Your task to perform on an android device: add a label to a message in the gmail app Image 0: 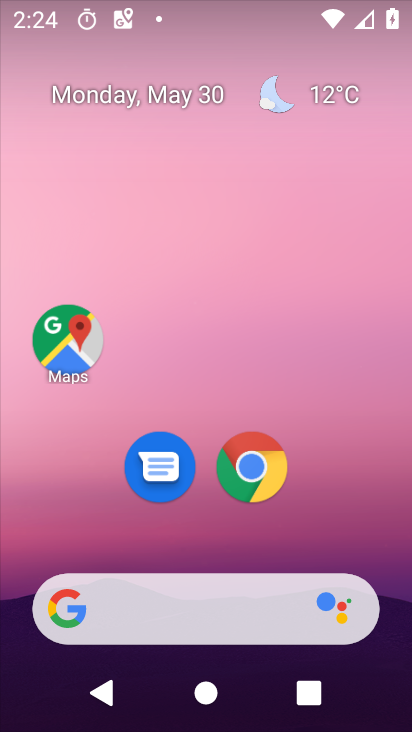
Step 0: drag from (383, 696) to (374, 264)
Your task to perform on an android device: add a label to a message in the gmail app Image 1: 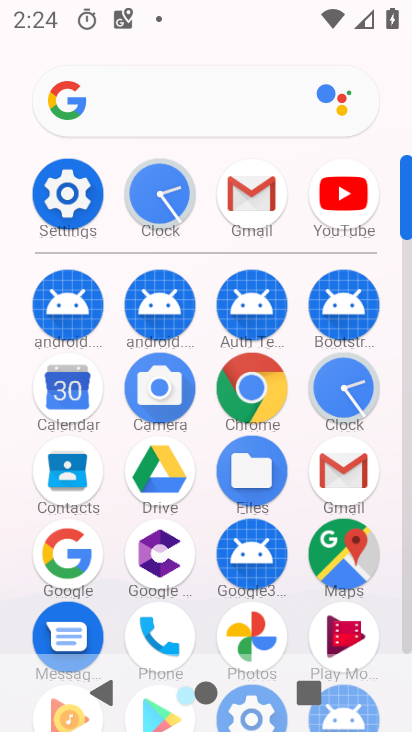
Step 1: click (254, 209)
Your task to perform on an android device: add a label to a message in the gmail app Image 2: 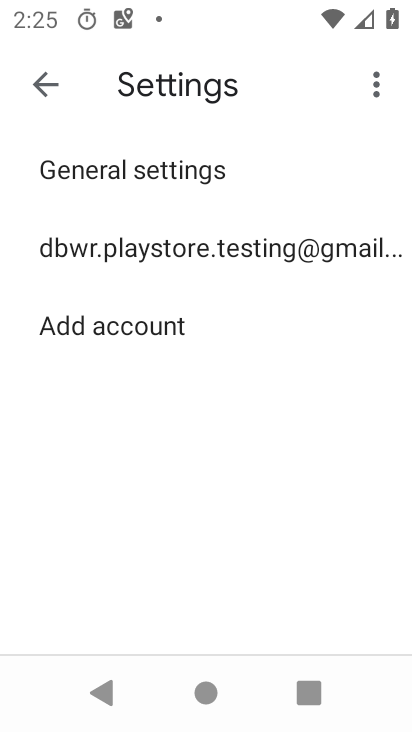
Step 2: click (35, 81)
Your task to perform on an android device: add a label to a message in the gmail app Image 3: 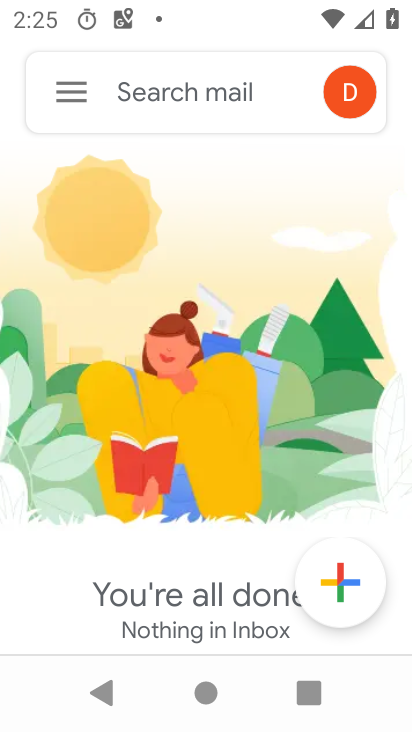
Step 3: click (64, 92)
Your task to perform on an android device: add a label to a message in the gmail app Image 4: 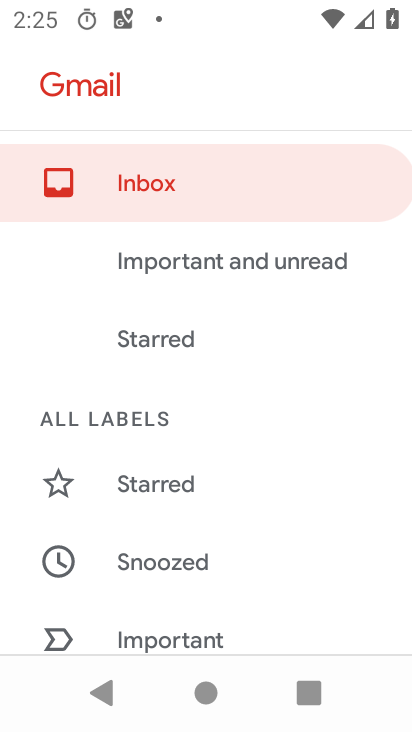
Step 4: click (204, 189)
Your task to perform on an android device: add a label to a message in the gmail app Image 5: 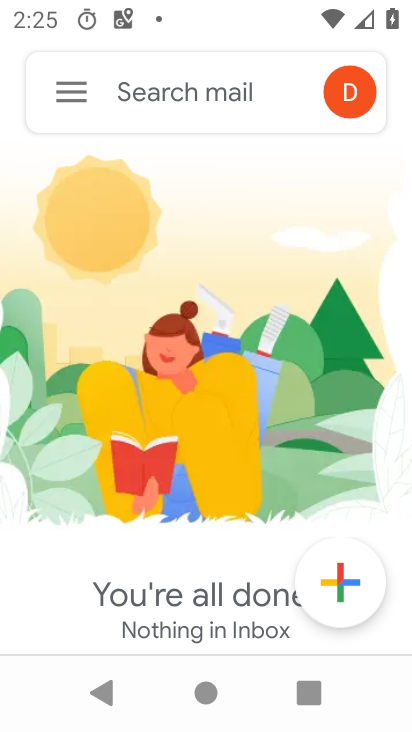
Step 5: task complete